Your task to perform on an android device: Open the calendar and show me this week's events Image 0: 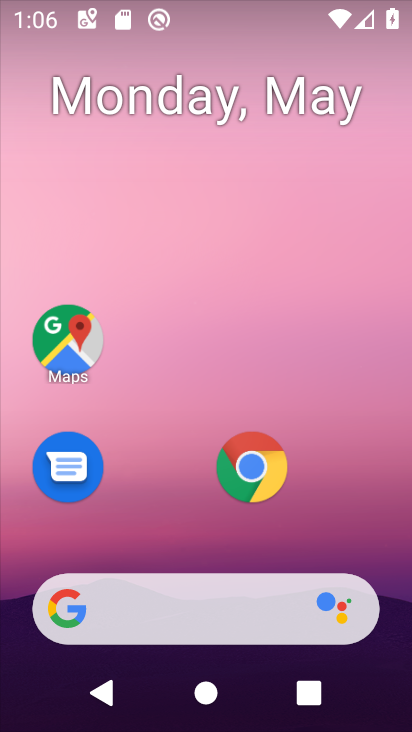
Step 0: drag from (170, 560) to (185, 133)
Your task to perform on an android device: Open the calendar and show me this week's events Image 1: 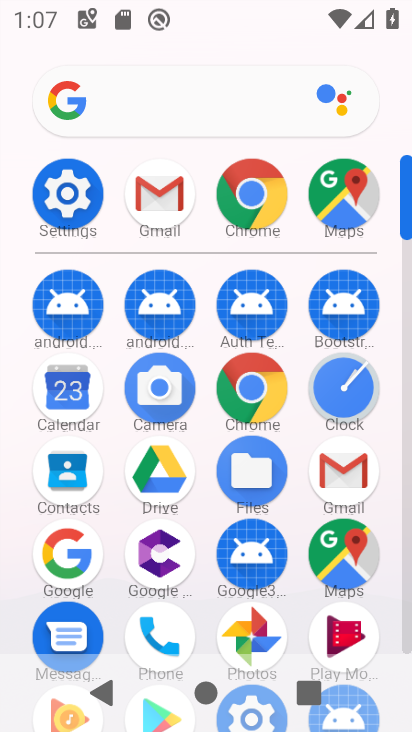
Step 1: drag from (211, 597) to (201, 280)
Your task to perform on an android device: Open the calendar and show me this week's events Image 2: 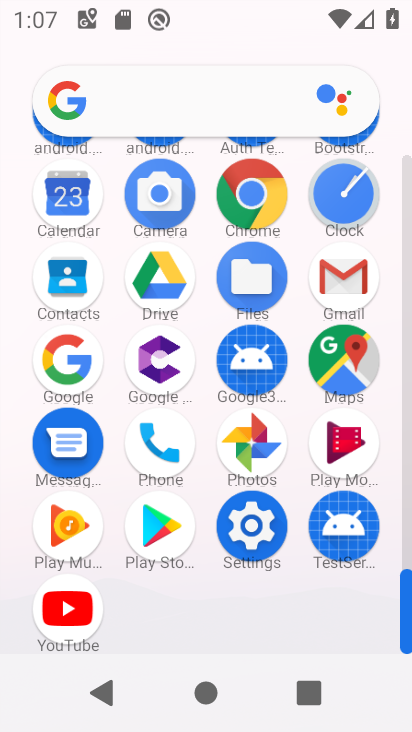
Step 2: click (147, 96)
Your task to perform on an android device: Open the calendar and show me this week's events Image 3: 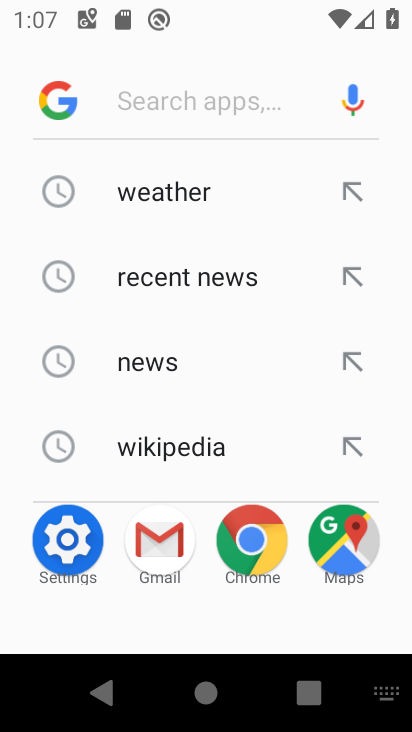
Step 3: press home button
Your task to perform on an android device: Open the calendar and show me this week's events Image 4: 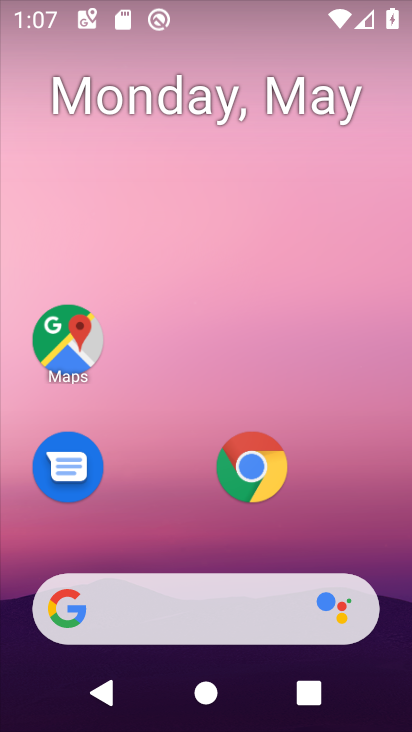
Step 4: drag from (204, 603) to (276, 50)
Your task to perform on an android device: Open the calendar and show me this week's events Image 5: 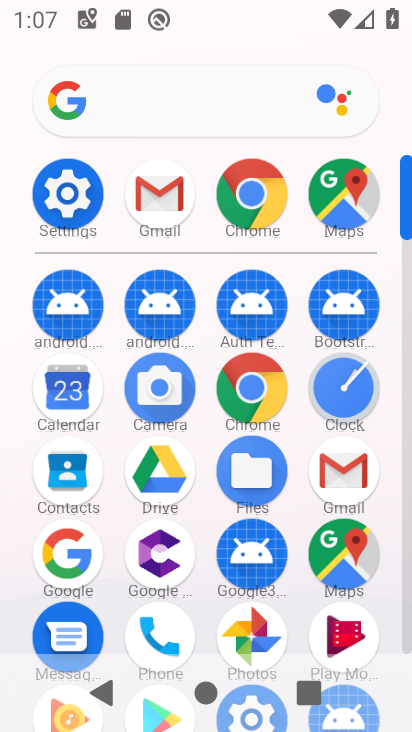
Step 5: click (62, 390)
Your task to perform on an android device: Open the calendar and show me this week's events Image 6: 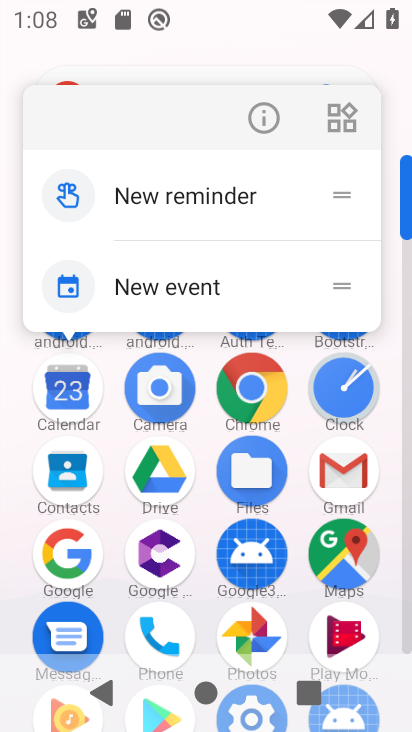
Step 6: click (276, 115)
Your task to perform on an android device: Open the calendar and show me this week's events Image 7: 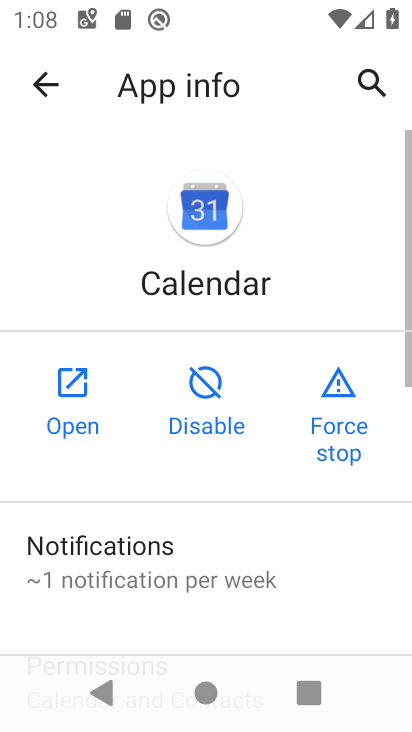
Step 7: click (76, 409)
Your task to perform on an android device: Open the calendar and show me this week's events Image 8: 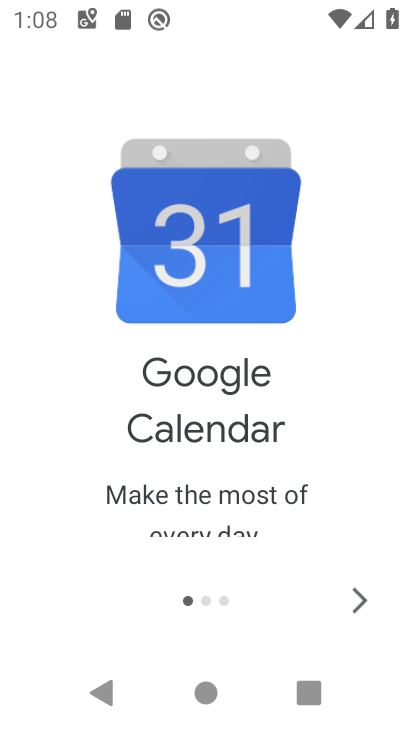
Step 8: click (352, 600)
Your task to perform on an android device: Open the calendar and show me this week's events Image 9: 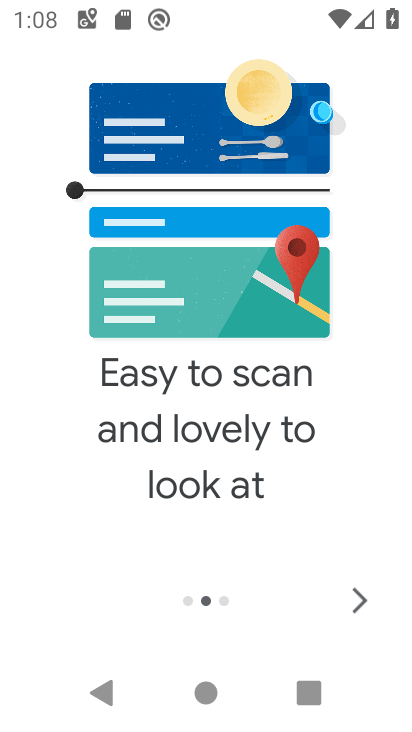
Step 9: click (352, 599)
Your task to perform on an android device: Open the calendar and show me this week's events Image 10: 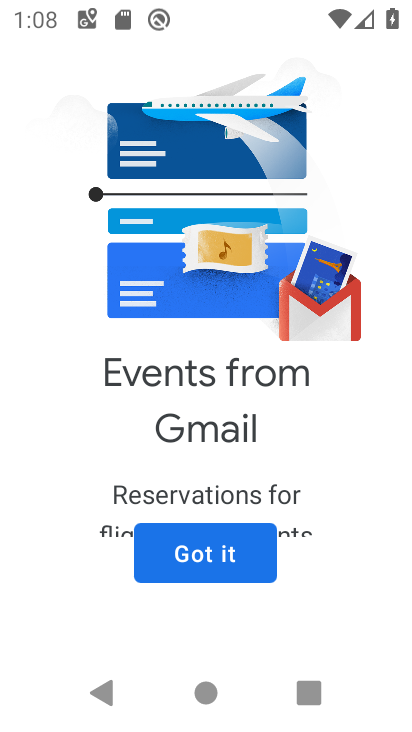
Step 10: click (203, 539)
Your task to perform on an android device: Open the calendar and show me this week's events Image 11: 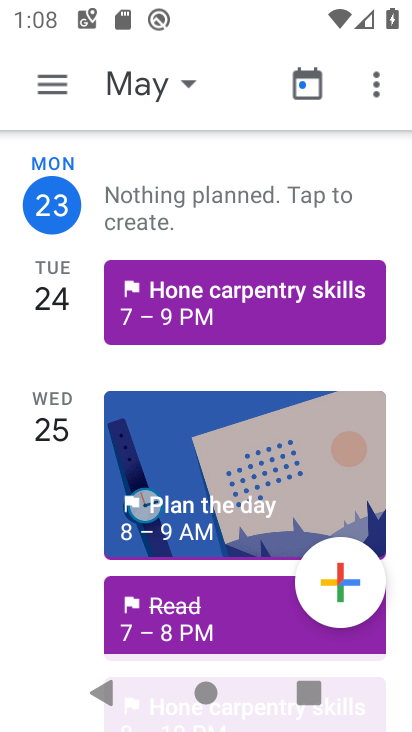
Step 11: drag from (225, 557) to (269, 164)
Your task to perform on an android device: Open the calendar and show me this week's events Image 12: 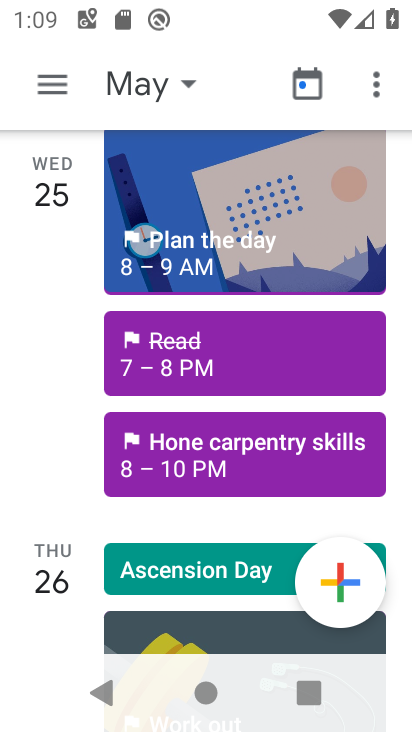
Step 12: click (145, 86)
Your task to perform on an android device: Open the calendar and show me this week's events Image 13: 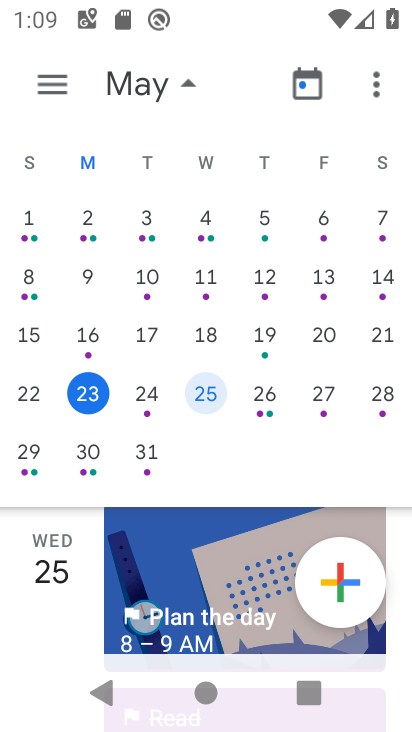
Step 13: click (315, 401)
Your task to perform on an android device: Open the calendar and show me this week's events Image 14: 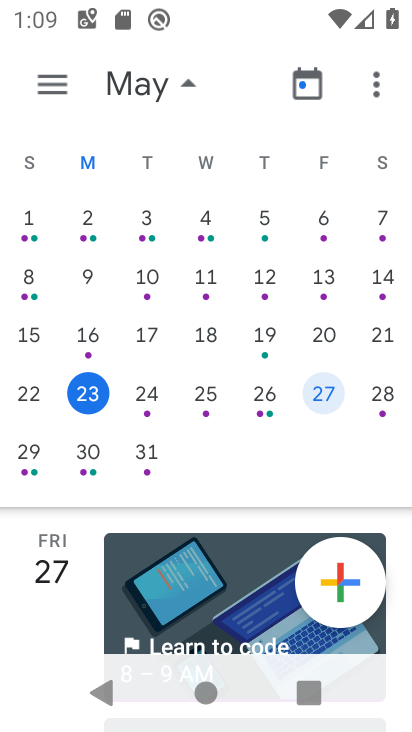
Step 14: task complete